Your task to perform on an android device: turn on sleep mode Image 0: 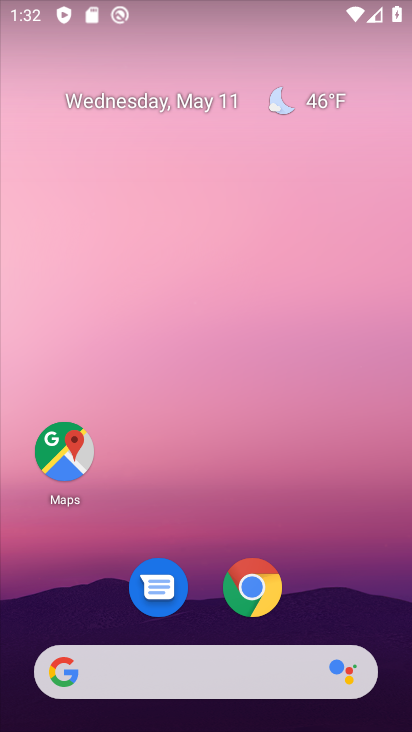
Step 0: press home button
Your task to perform on an android device: turn on sleep mode Image 1: 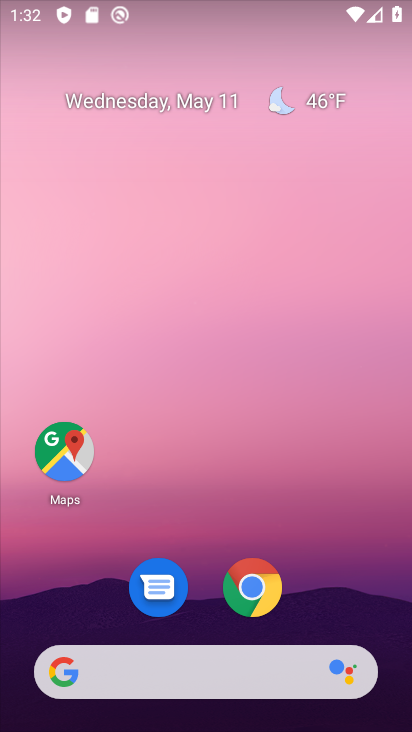
Step 1: drag from (377, 629) to (293, 113)
Your task to perform on an android device: turn on sleep mode Image 2: 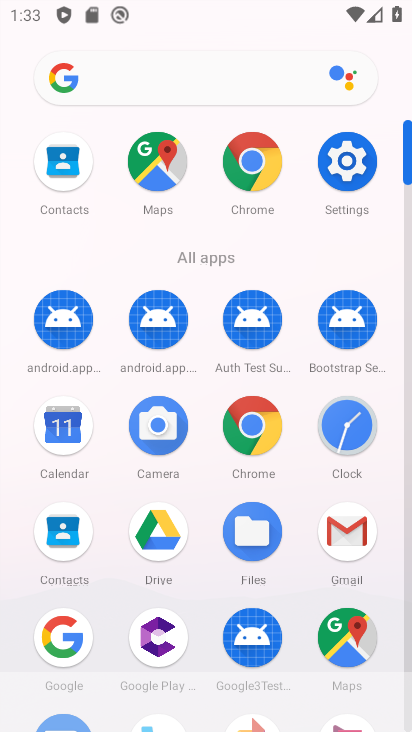
Step 2: click (345, 125)
Your task to perform on an android device: turn on sleep mode Image 3: 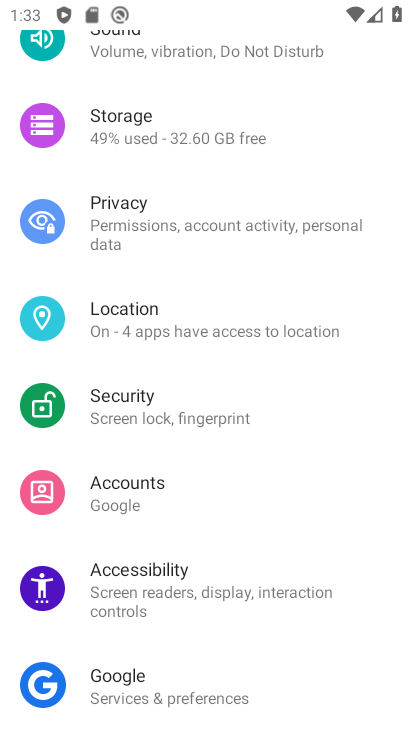
Step 3: drag from (152, 379) to (144, 695)
Your task to perform on an android device: turn on sleep mode Image 4: 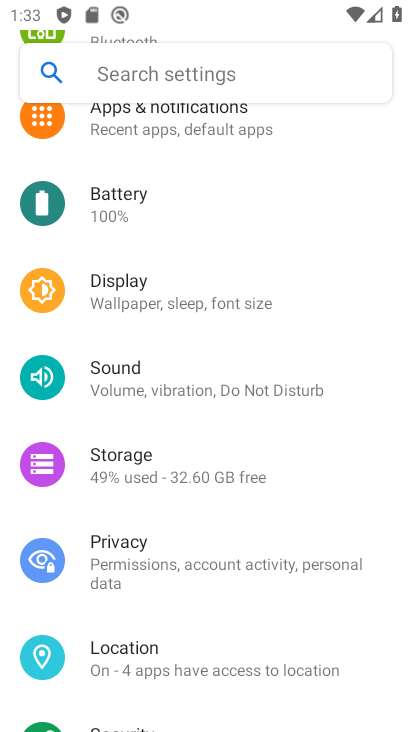
Step 4: click (166, 303)
Your task to perform on an android device: turn on sleep mode Image 5: 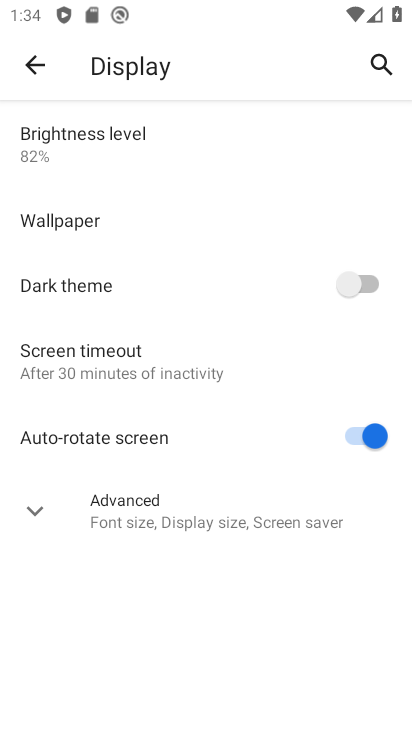
Step 5: task complete